Your task to perform on an android device: turn notification dots off Image 0: 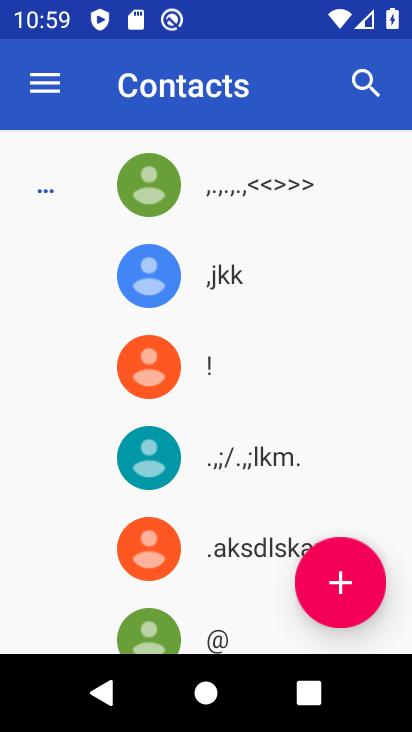
Step 0: press home button
Your task to perform on an android device: turn notification dots off Image 1: 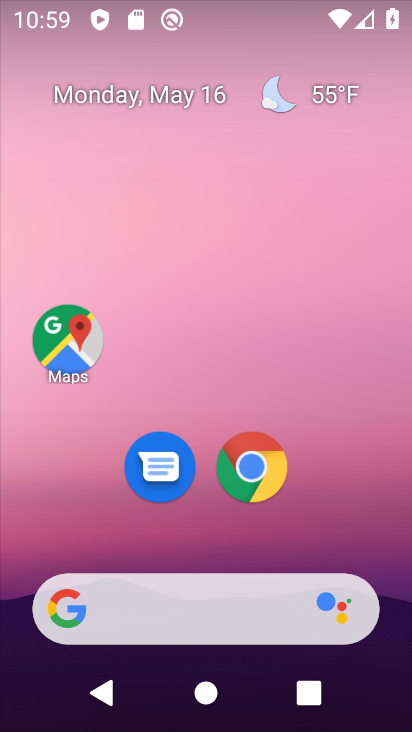
Step 1: drag from (243, 500) to (301, 21)
Your task to perform on an android device: turn notification dots off Image 2: 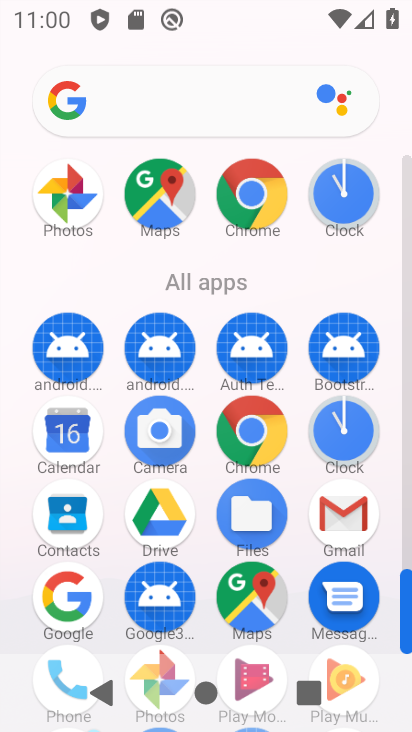
Step 2: drag from (232, 490) to (337, 36)
Your task to perform on an android device: turn notification dots off Image 3: 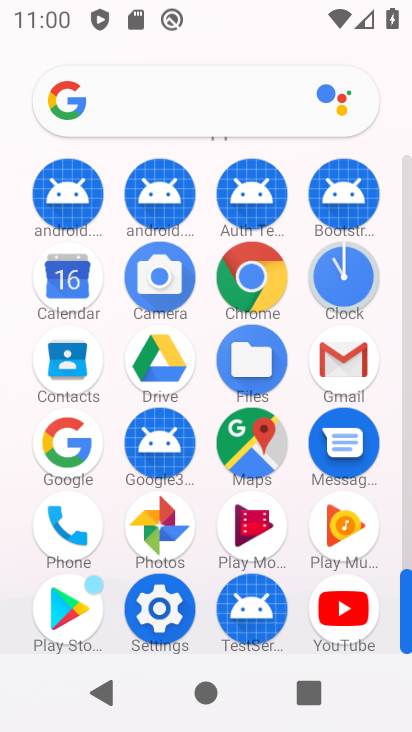
Step 3: click (171, 614)
Your task to perform on an android device: turn notification dots off Image 4: 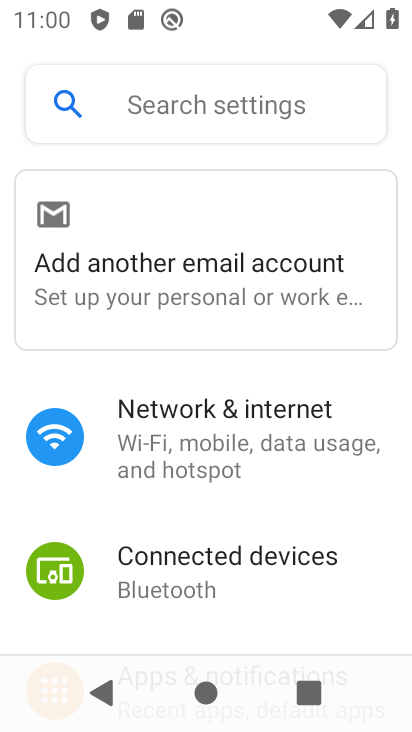
Step 4: drag from (204, 520) to (237, 332)
Your task to perform on an android device: turn notification dots off Image 5: 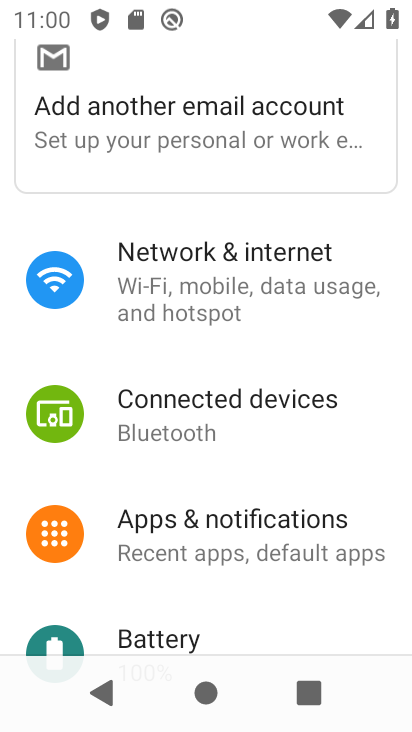
Step 5: click (221, 540)
Your task to perform on an android device: turn notification dots off Image 6: 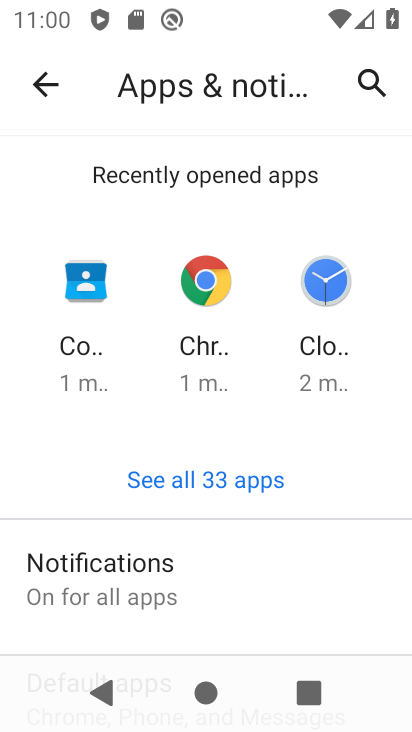
Step 6: drag from (190, 578) to (220, 399)
Your task to perform on an android device: turn notification dots off Image 7: 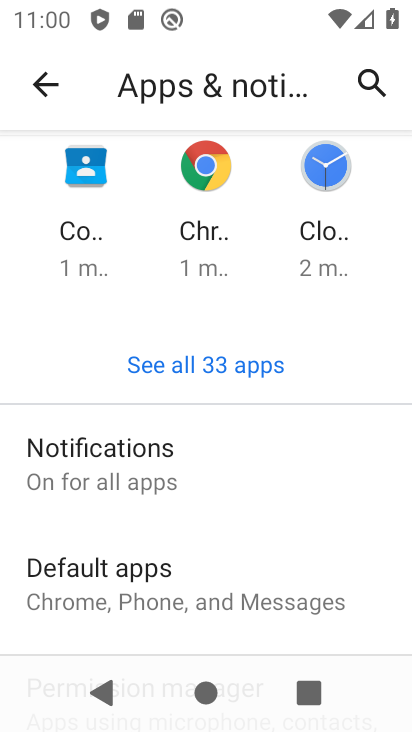
Step 7: drag from (153, 580) to (166, 497)
Your task to perform on an android device: turn notification dots off Image 8: 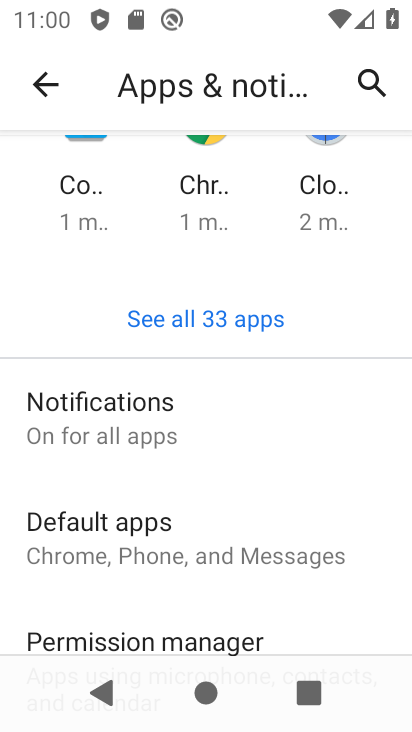
Step 8: click (120, 420)
Your task to perform on an android device: turn notification dots off Image 9: 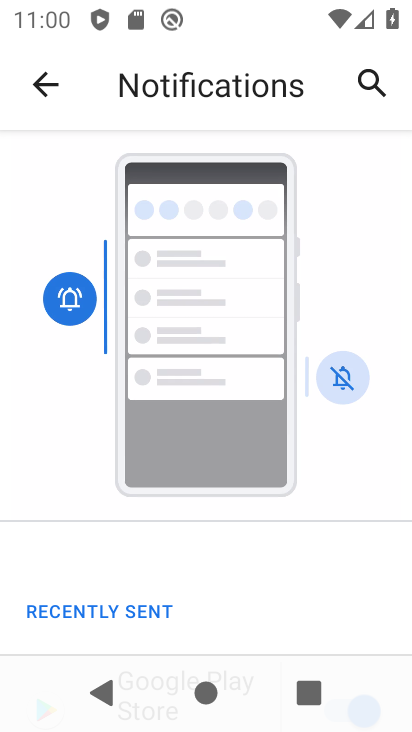
Step 9: drag from (186, 585) to (236, 250)
Your task to perform on an android device: turn notification dots off Image 10: 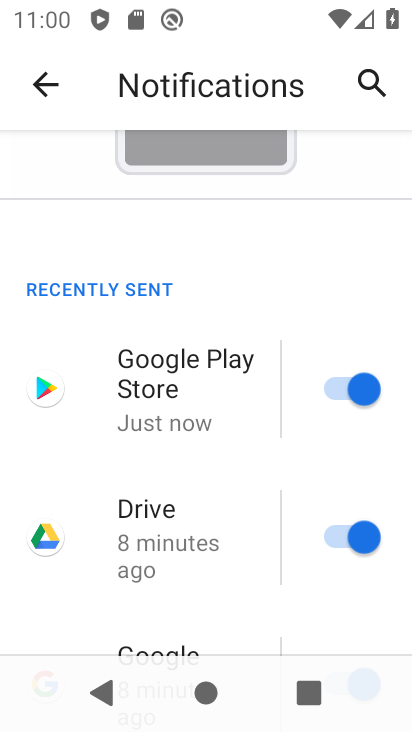
Step 10: drag from (152, 444) to (208, 117)
Your task to perform on an android device: turn notification dots off Image 11: 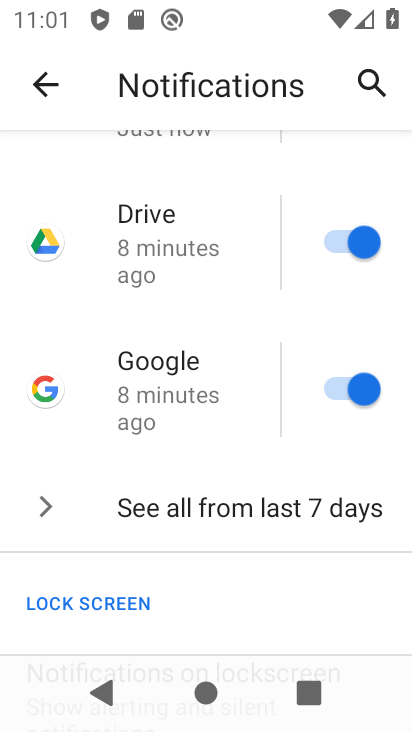
Step 11: drag from (188, 554) to (250, 164)
Your task to perform on an android device: turn notification dots off Image 12: 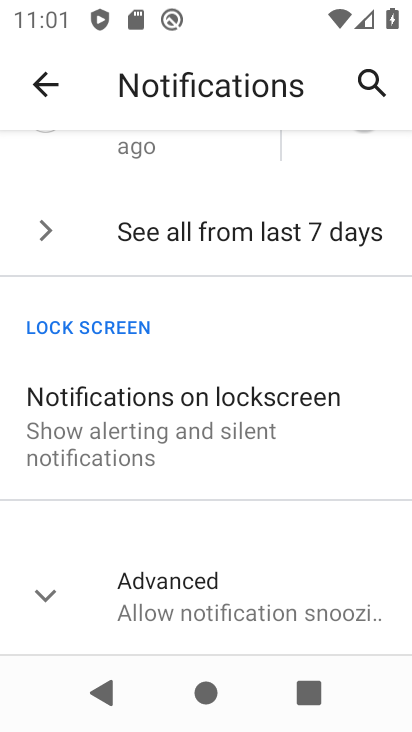
Step 12: click (179, 605)
Your task to perform on an android device: turn notification dots off Image 13: 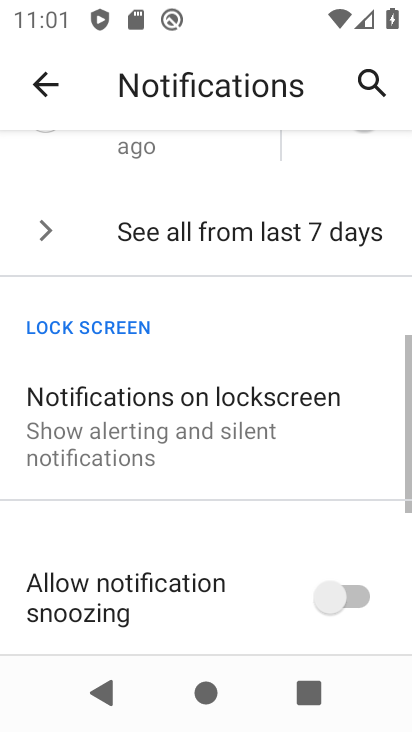
Step 13: drag from (176, 582) to (192, 234)
Your task to perform on an android device: turn notification dots off Image 14: 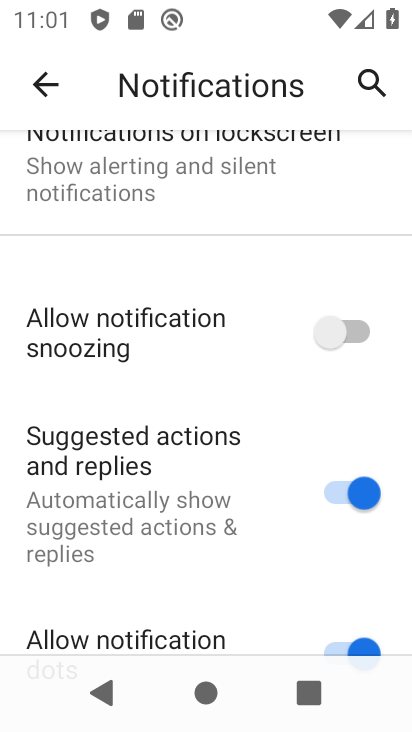
Step 14: drag from (178, 529) to (213, 282)
Your task to perform on an android device: turn notification dots off Image 15: 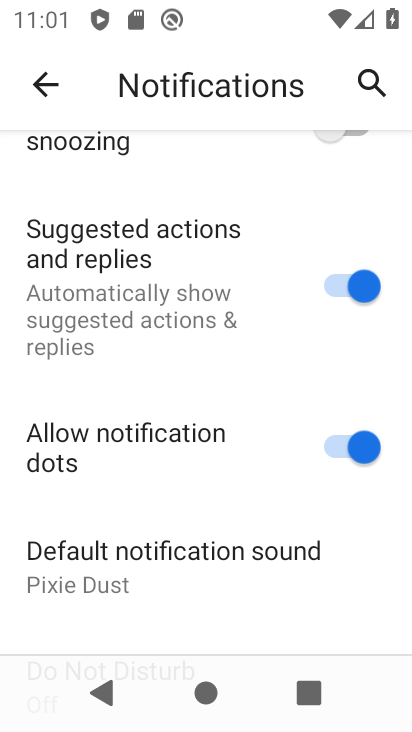
Step 15: click (327, 449)
Your task to perform on an android device: turn notification dots off Image 16: 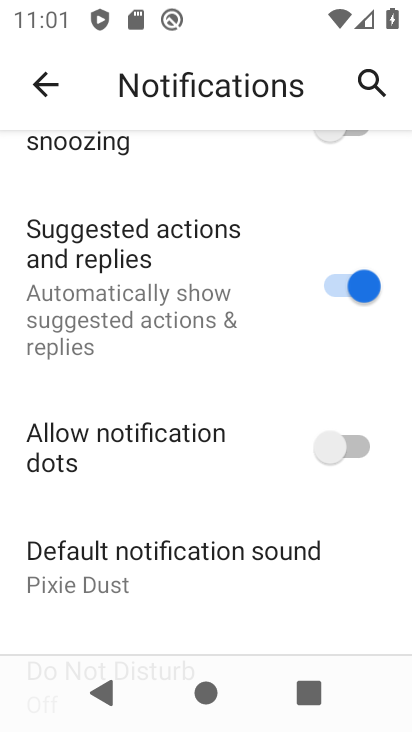
Step 16: task complete